Your task to perform on an android device: Open display settings Image 0: 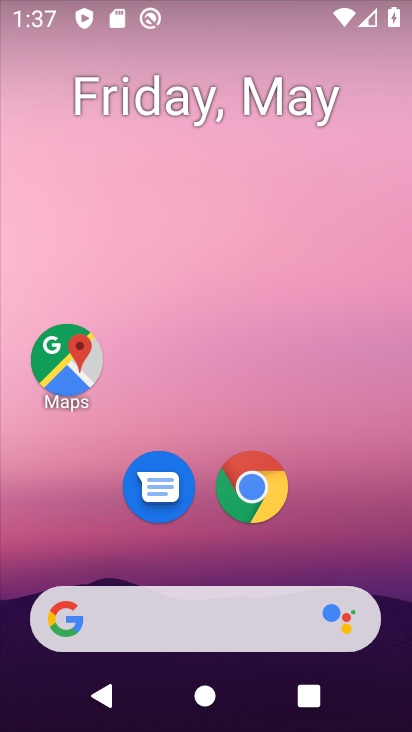
Step 0: drag from (357, 543) to (290, 33)
Your task to perform on an android device: Open display settings Image 1: 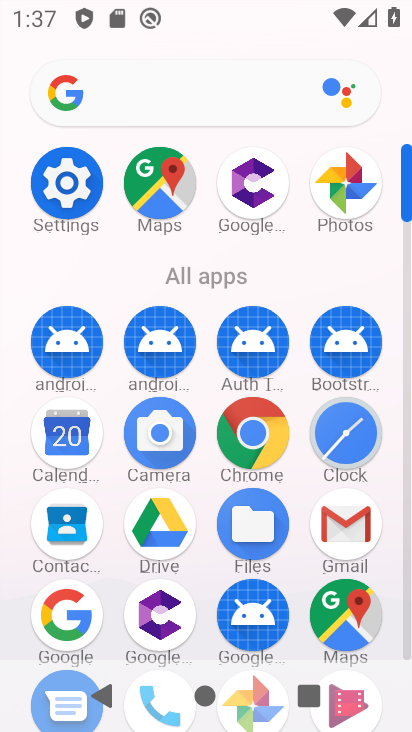
Step 1: click (70, 191)
Your task to perform on an android device: Open display settings Image 2: 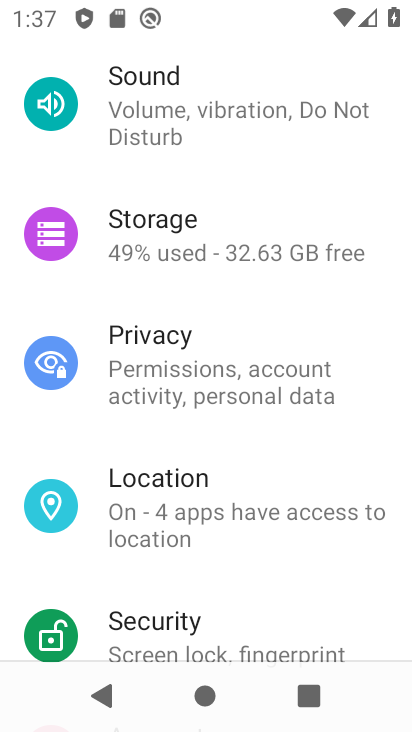
Step 2: drag from (307, 329) to (326, 471)
Your task to perform on an android device: Open display settings Image 3: 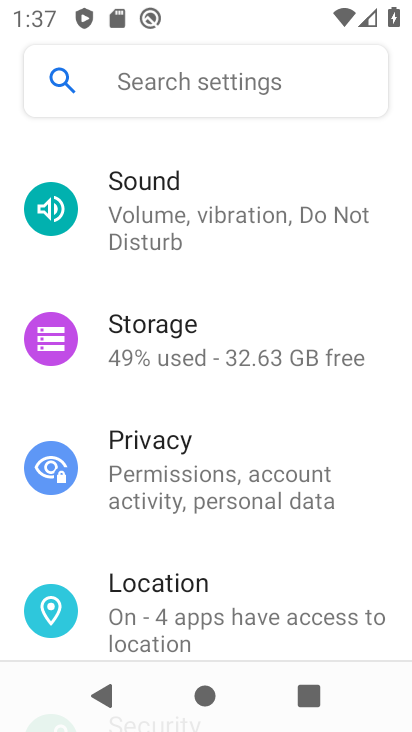
Step 3: drag from (285, 430) to (256, 120)
Your task to perform on an android device: Open display settings Image 4: 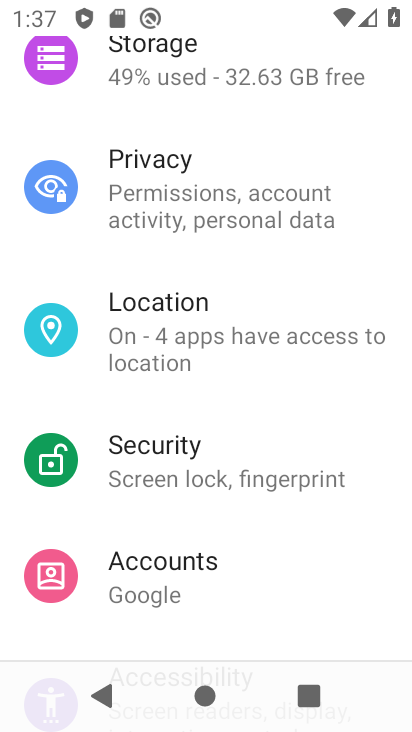
Step 4: drag from (282, 171) to (313, 538)
Your task to perform on an android device: Open display settings Image 5: 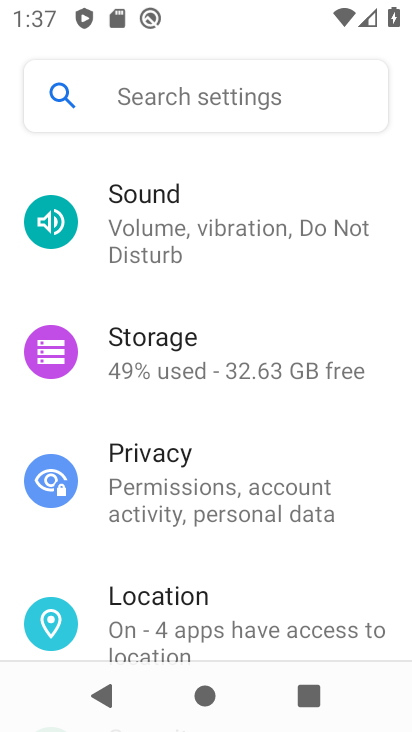
Step 5: drag from (305, 171) to (341, 500)
Your task to perform on an android device: Open display settings Image 6: 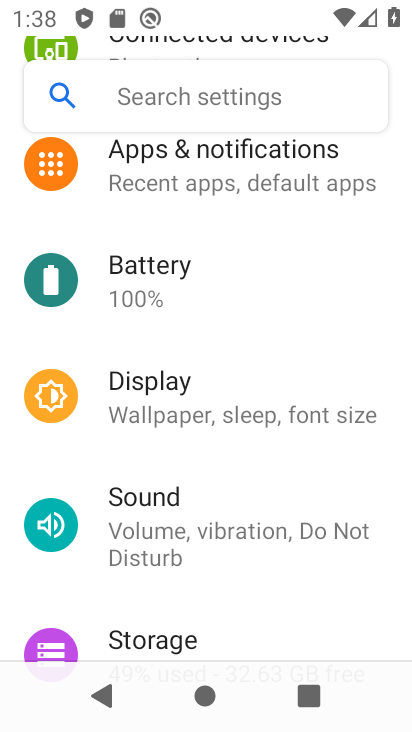
Step 6: click (153, 402)
Your task to perform on an android device: Open display settings Image 7: 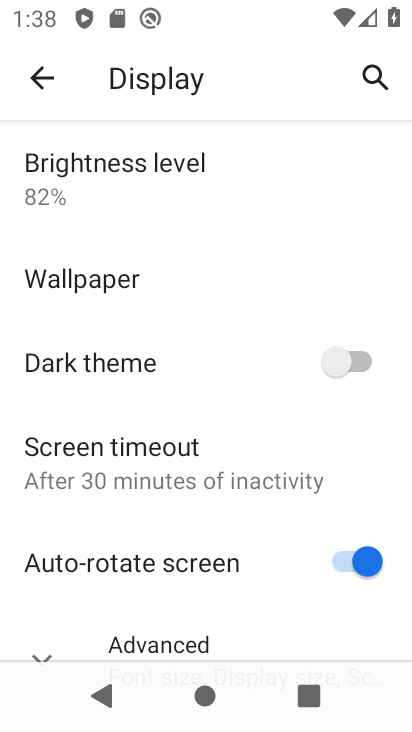
Step 7: task complete